Your task to perform on an android device: Open calendar and show me the second week of next month Image 0: 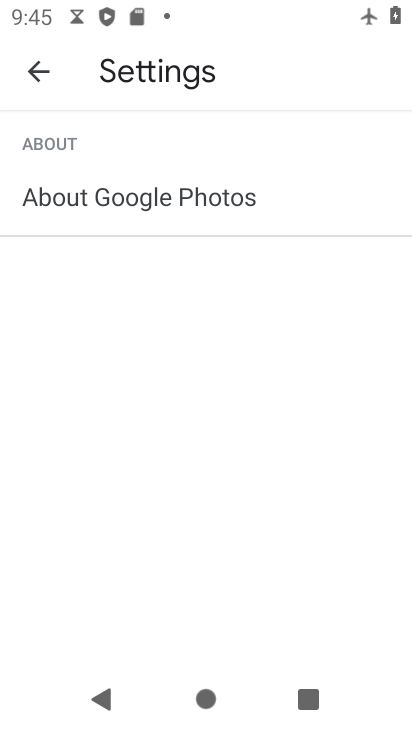
Step 0: press home button
Your task to perform on an android device: Open calendar and show me the second week of next month Image 1: 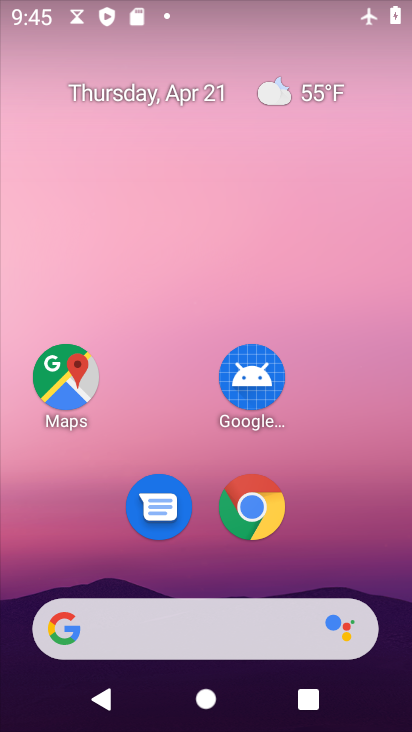
Step 1: drag from (301, 551) to (326, 168)
Your task to perform on an android device: Open calendar and show me the second week of next month Image 2: 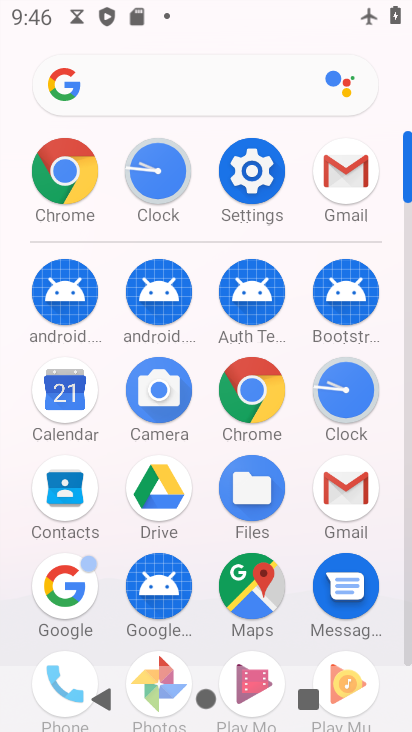
Step 2: drag from (204, 573) to (215, 189)
Your task to perform on an android device: Open calendar and show me the second week of next month Image 3: 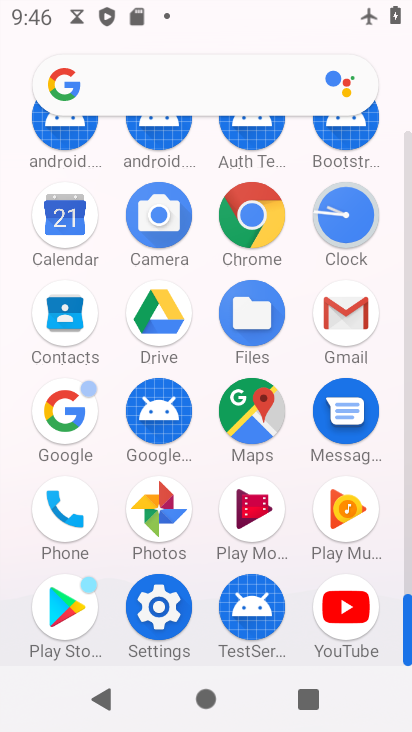
Step 3: click (67, 226)
Your task to perform on an android device: Open calendar and show me the second week of next month Image 4: 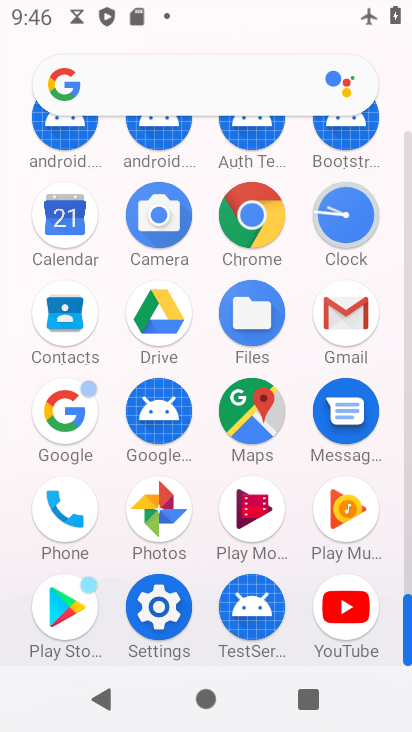
Step 4: click (67, 226)
Your task to perform on an android device: Open calendar and show me the second week of next month Image 5: 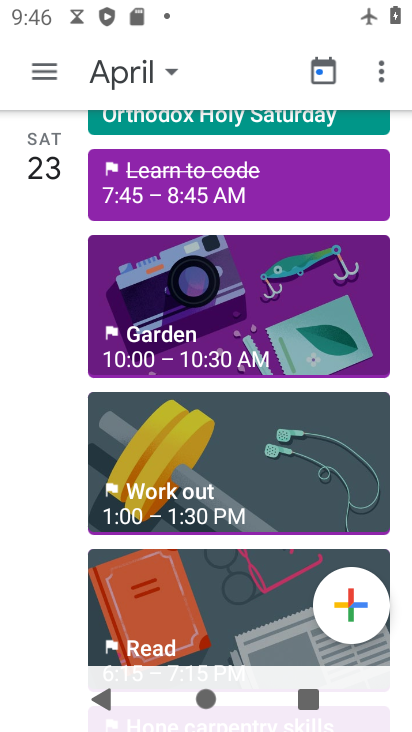
Step 5: click (46, 58)
Your task to perform on an android device: Open calendar and show me the second week of next month Image 6: 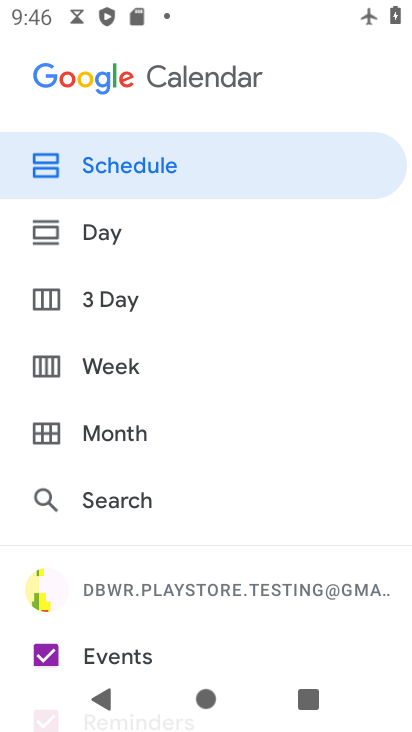
Step 6: click (128, 427)
Your task to perform on an android device: Open calendar and show me the second week of next month Image 7: 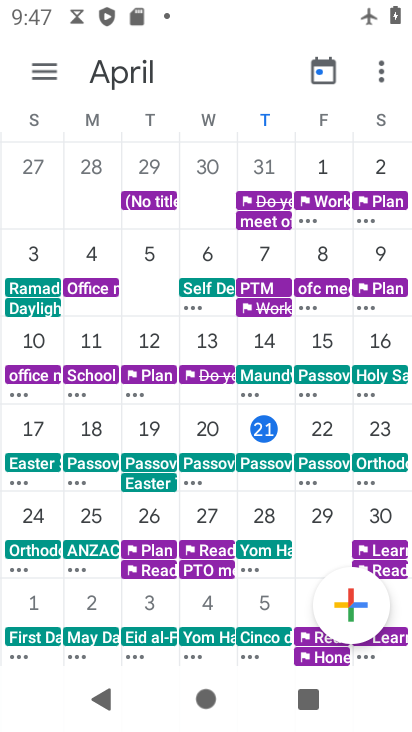
Step 7: task complete